Your task to perform on an android device: Open location settings Image 0: 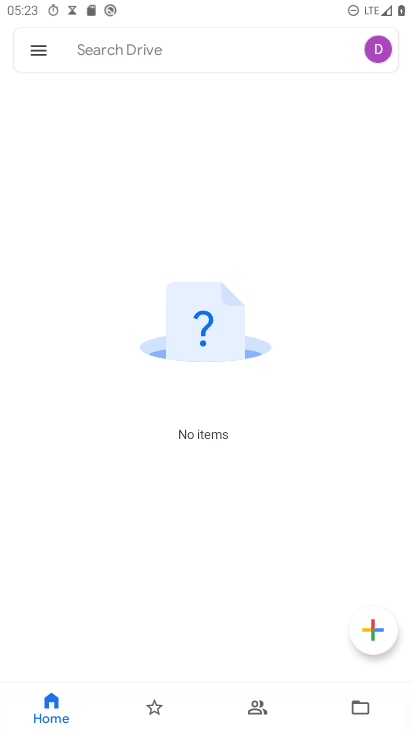
Step 0: press home button
Your task to perform on an android device: Open location settings Image 1: 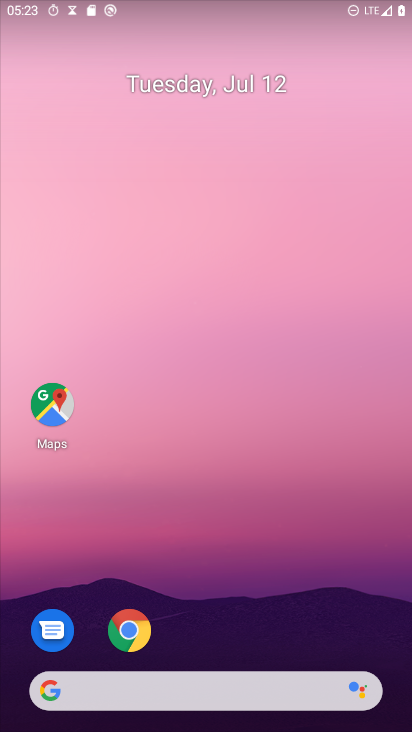
Step 1: drag from (186, 615) to (410, 64)
Your task to perform on an android device: Open location settings Image 2: 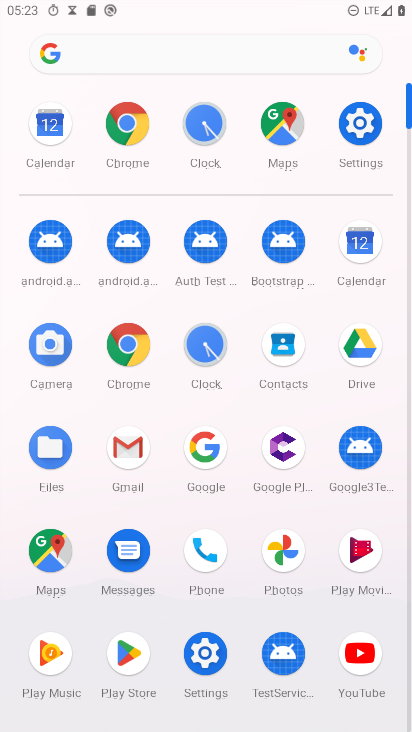
Step 2: click (358, 163)
Your task to perform on an android device: Open location settings Image 3: 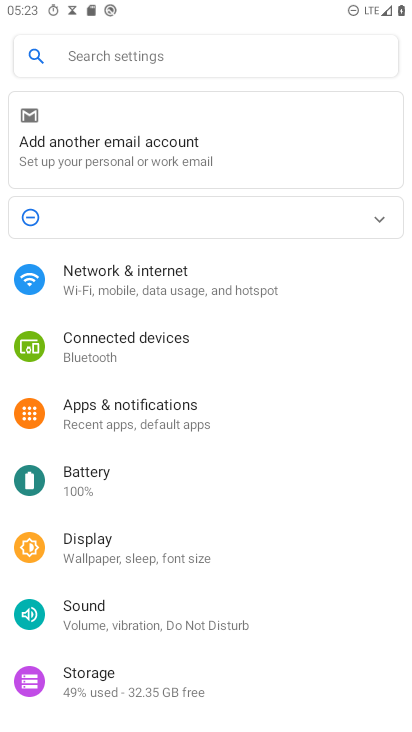
Step 3: drag from (133, 688) to (137, 220)
Your task to perform on an android device: Open location settings Image 4: 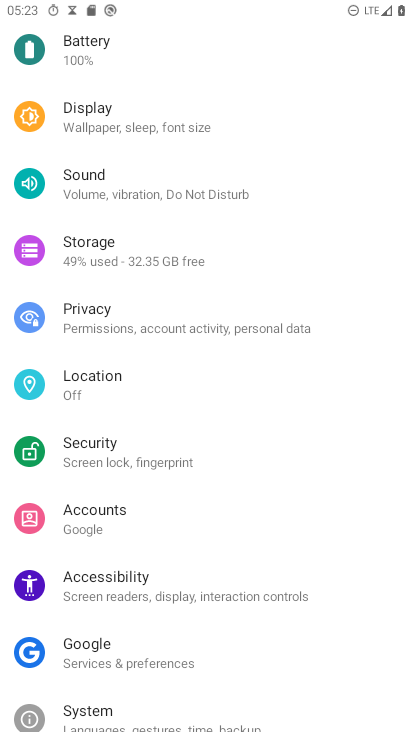
Step 4: click (90, 385)
Your task to perform on an android device: Open location settings Image 5: 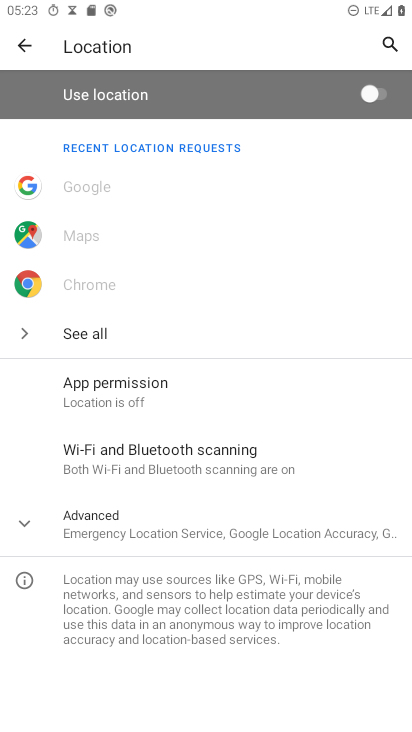
Step 5: task complete